Your task to perform on an android device: turn notification dots off Image 0: 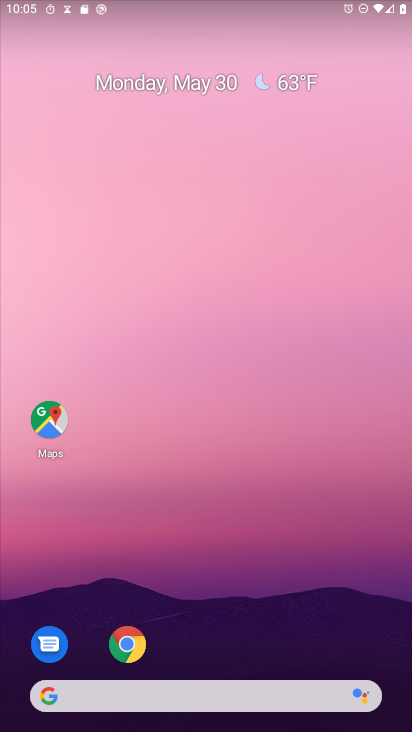
Step 0: drag from (206, 635) to (230, 42)
Your task to perform on an android device: turn notification dots off Image 1: 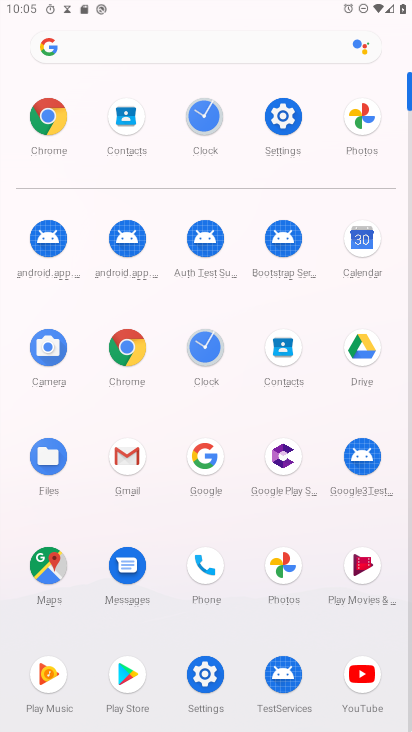
Step 1: click (290, 112)
Your task to perform on an android device: turn notification dots off Image 2: 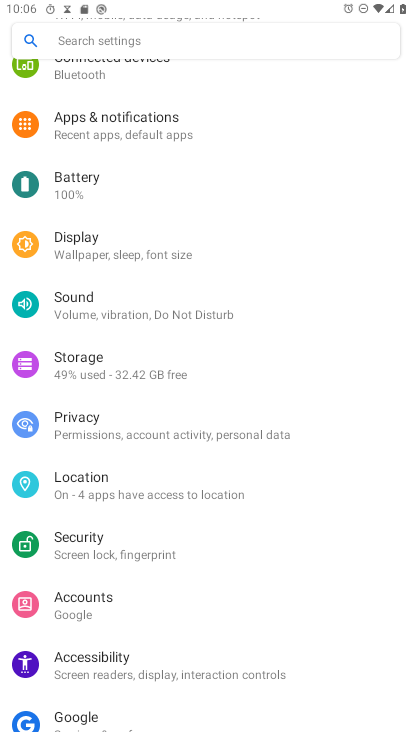
Step 2: click (104, 131)
Your task to perform on an android device: turn notification dots off Image 3: 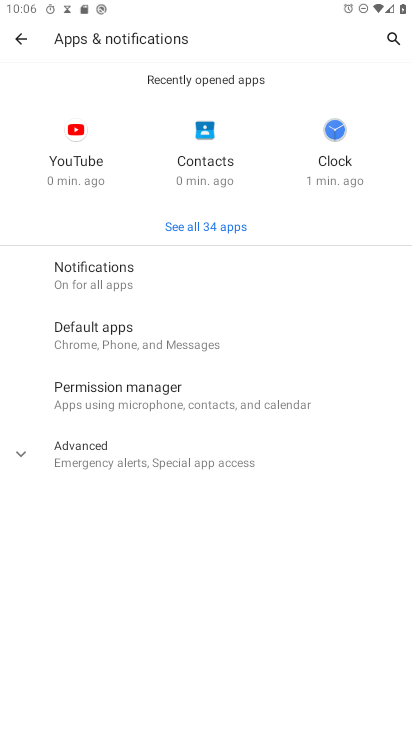
Step 3: click (96, 281)
Your task to perform on an android device: turn notification dots off Image 4: 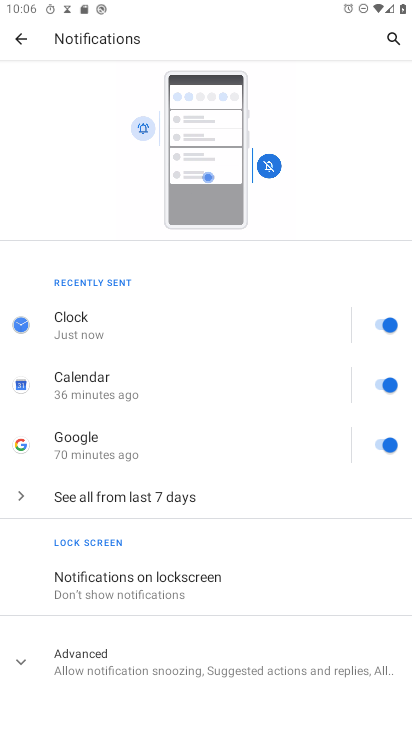
Step 4: drag from (123, 645) to (152, 211)
Your task to perform on an android device: turn notification dots off Image 5: 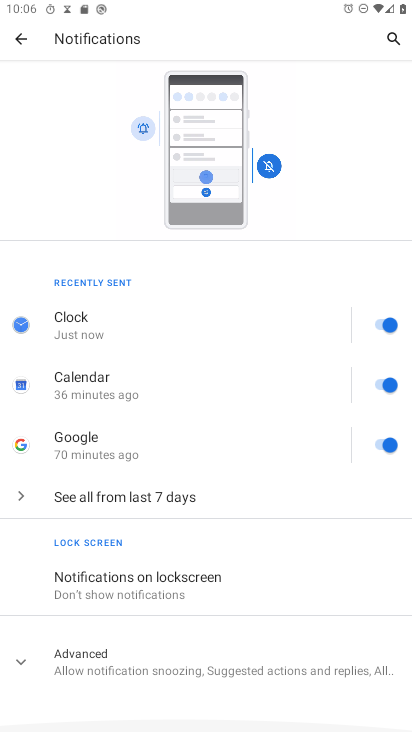
Step 5: click (113, 680)
Your task to perform on an android device: turn notification dots off Image 6: 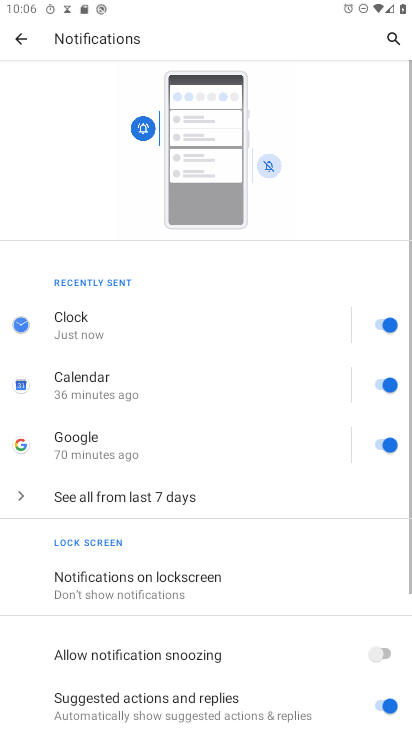
Step 6: drag from (233, 634) to (264, 194)
Your task to perform on an android device: turn notification dots off Image 7: 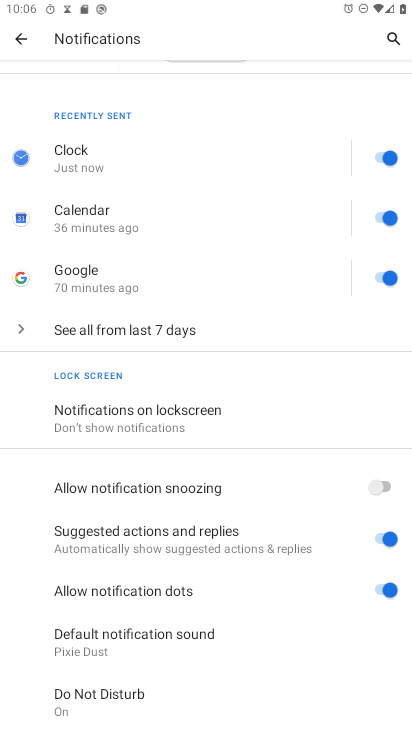
Step 7: click (380, 589)
Your task to perform on an android device: turn notification dots off Image 8: 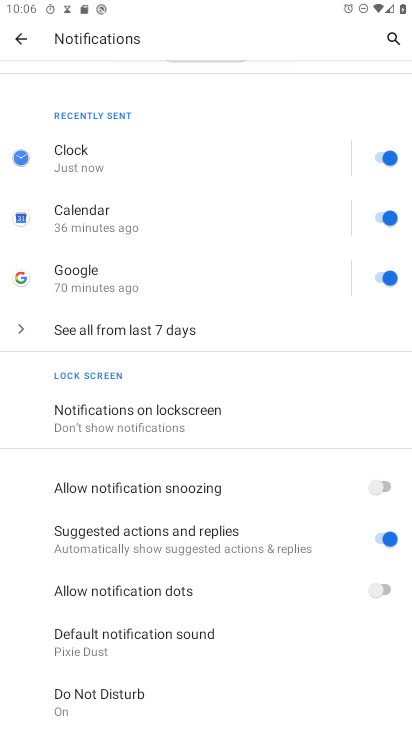
Step 8: task complete